Your task to perform on an android device: turn on wifi Image 0: 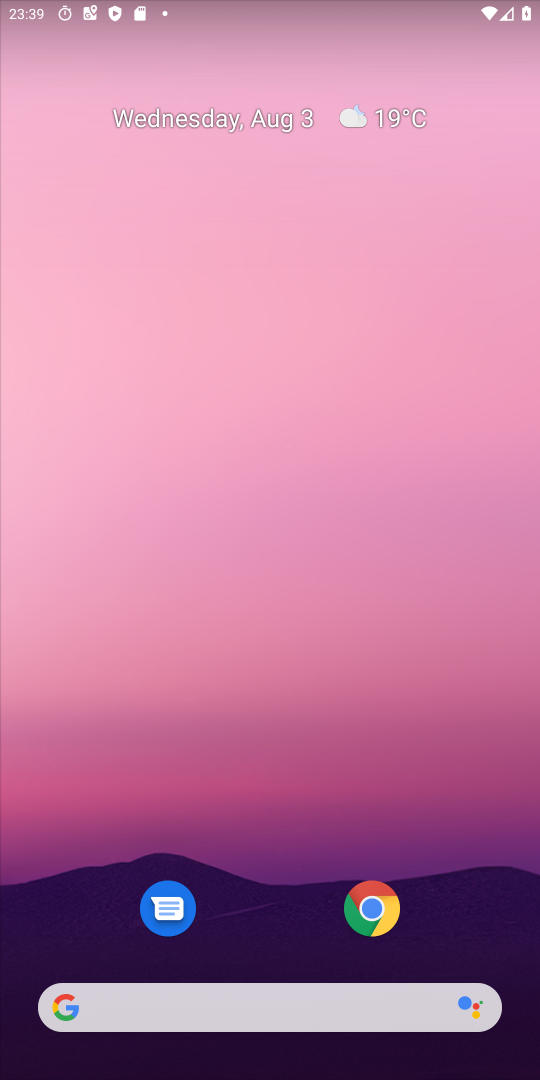
Step 0: drag from (312, 1046) to (215, 309)
Your task to perform on an android device: turn on wifi Image 1: 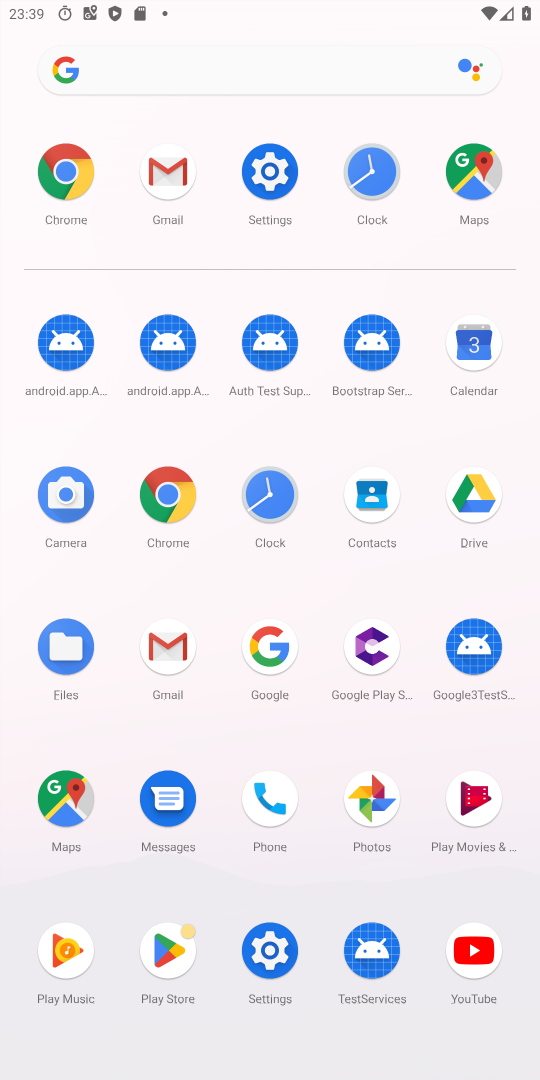
Step 1: click (272, 162)
Your task to perform on an android device: turn on wifi Image 2: 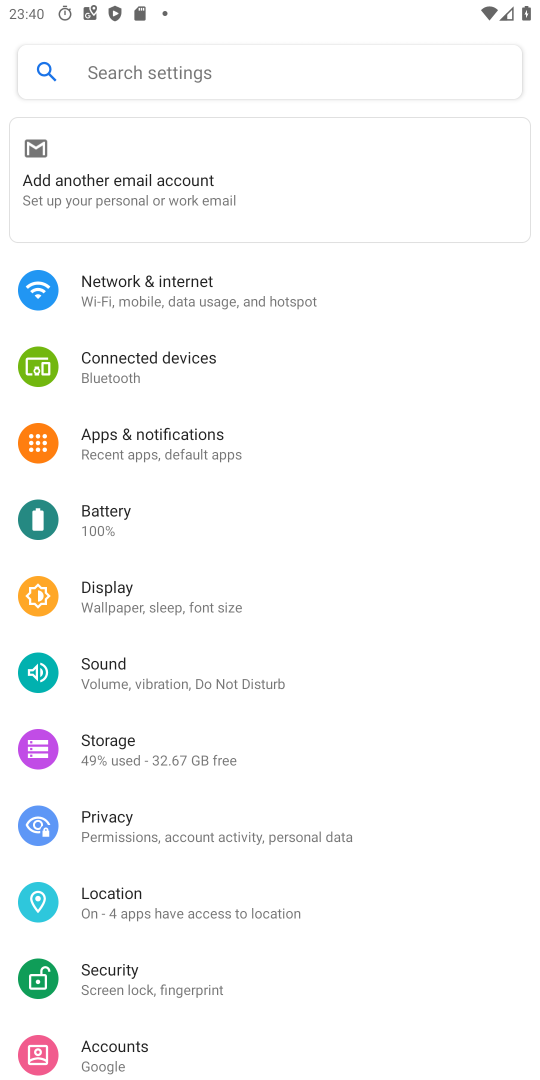
Step 2: click (137, 294)
Your task to perform on an android device: turn on wifi Image 3: 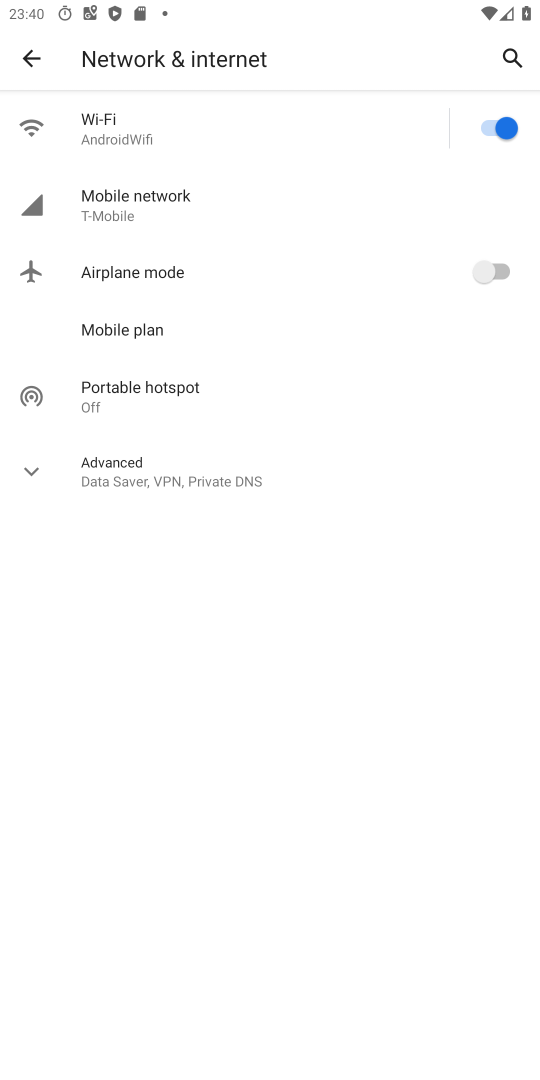
Step 3: click (172, 142)
Your task to perform on an android device: turn on wifi Image 4: 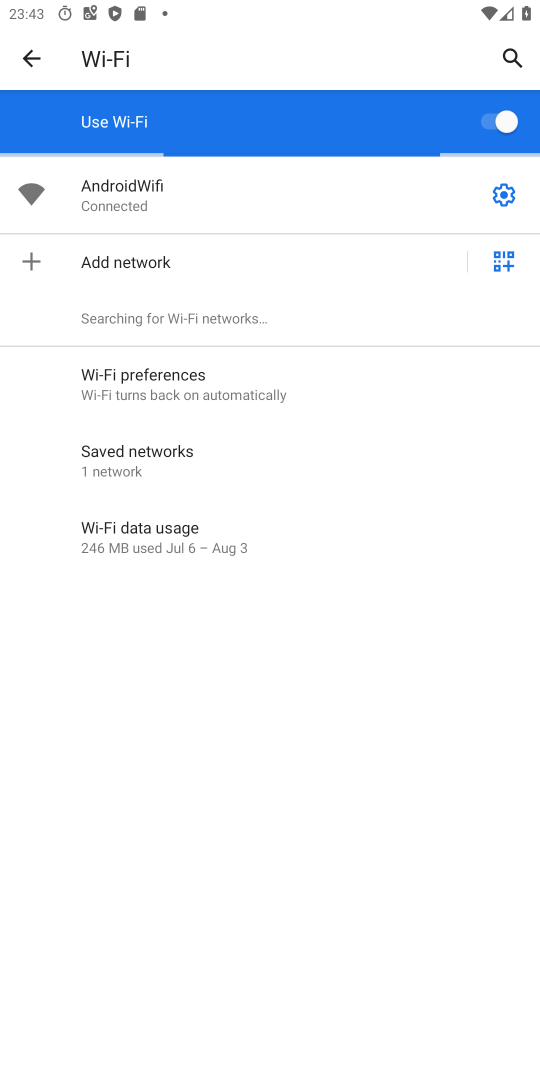
Step 4: task complete